Your task to perform on an android device: Open my contact list Image 0: 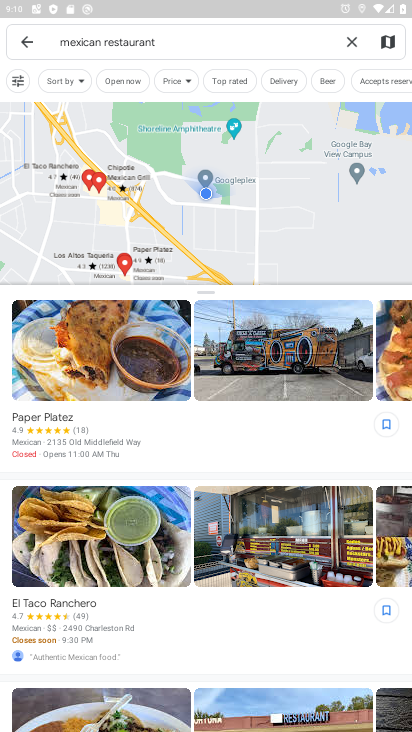
Step 0: press home button
Your task to perform on an android device: Open my contact list Image 1: 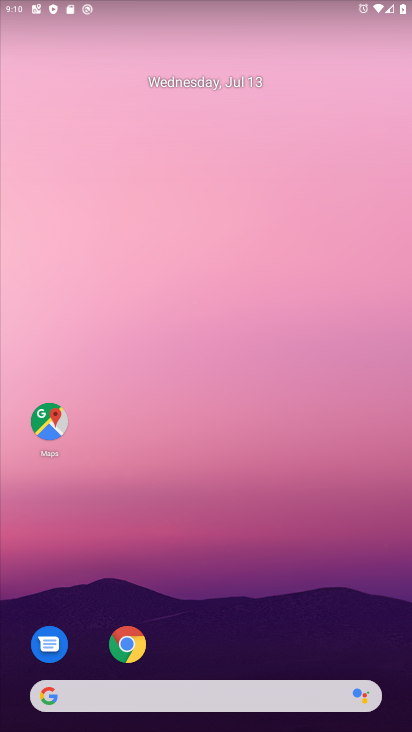
Step 1: drag from (182, 721) to (177, 0)
Your task to perform on an android device: Open my contact list Image 2: 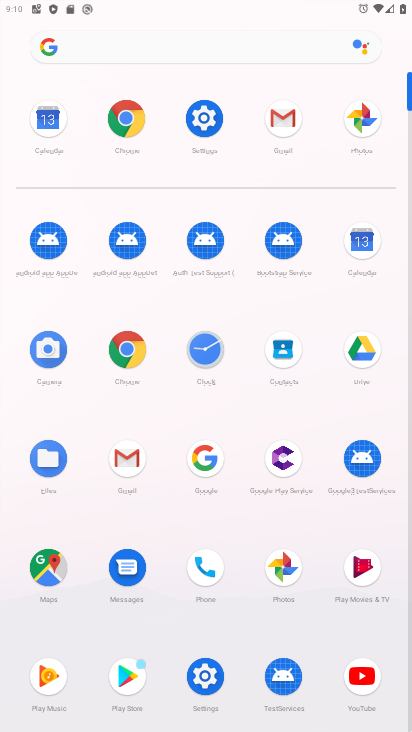
Step 2: click (286, 354)
Your task to perform on an android device: Open my contact list Image 3: 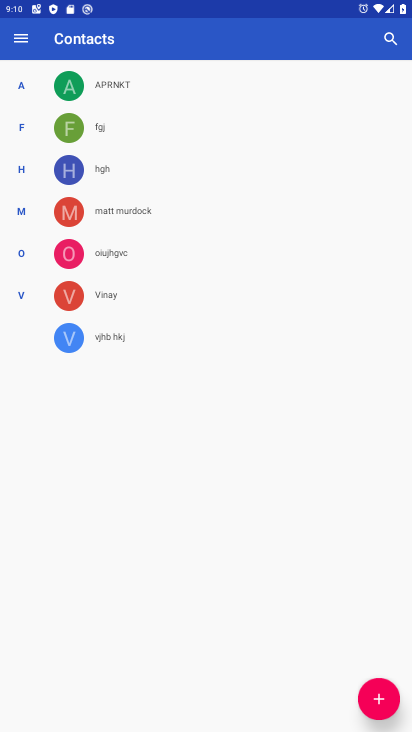
Step 3: task complete